Your task to perform on an android device: Search for seafood restaurants on Google Maps Image 0: 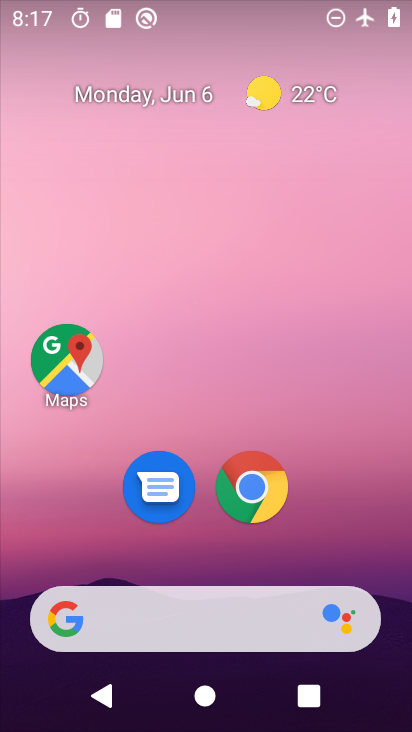
Step 0: drag from (376, 651) to (265, 48)
Your task to perform on an android device: Search for seafood restaurants on Google Maps Image 1: 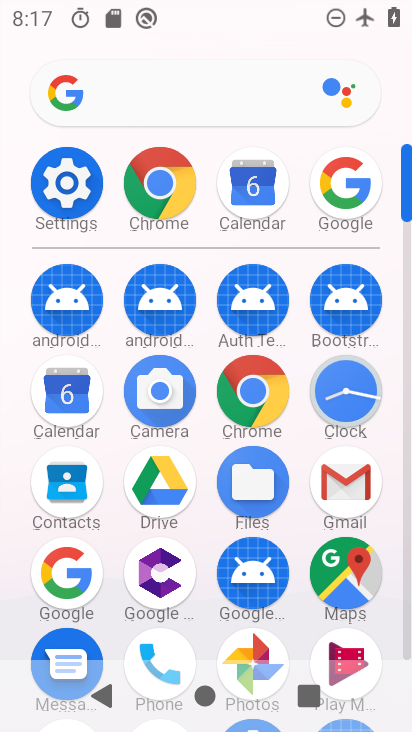
Step 1: click (332, 565)
Your task to perform on an android device: Search for seafood restaurants on Google Maps Image 2: 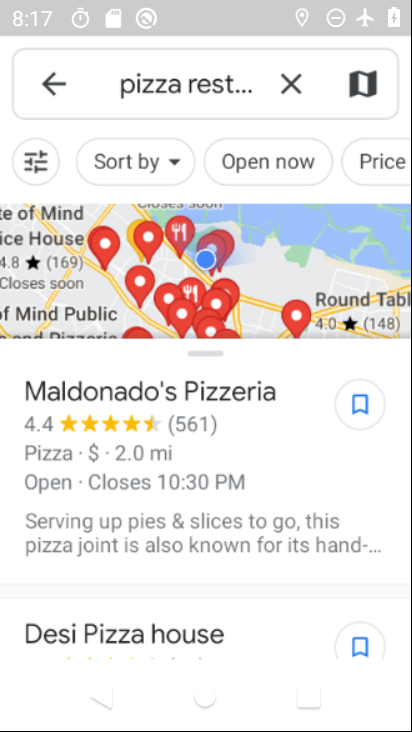
Step 2: click (287, 80)
Your task to perform on an android device: Search for seafood restaurants on Google Maps Image 3: 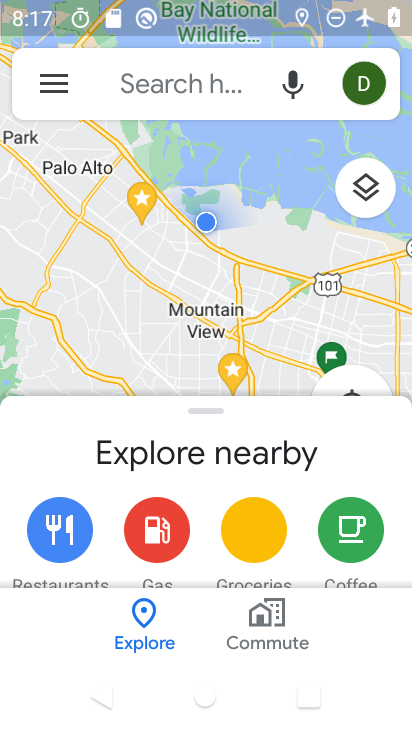
Step 3: click (147, 87)
Your task to perform on an android device: Search for seafood restaurants on Google Maps Image 4: 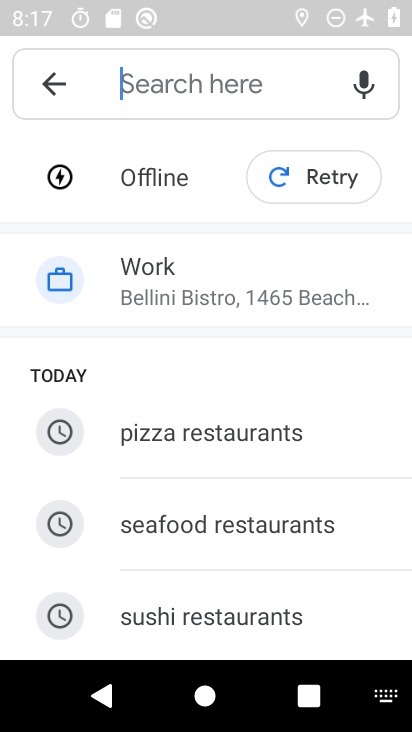
Step 4: click (236, 530)
Your task to perform on an android device: Search for seafood restaurants on Google Maps Image 5: 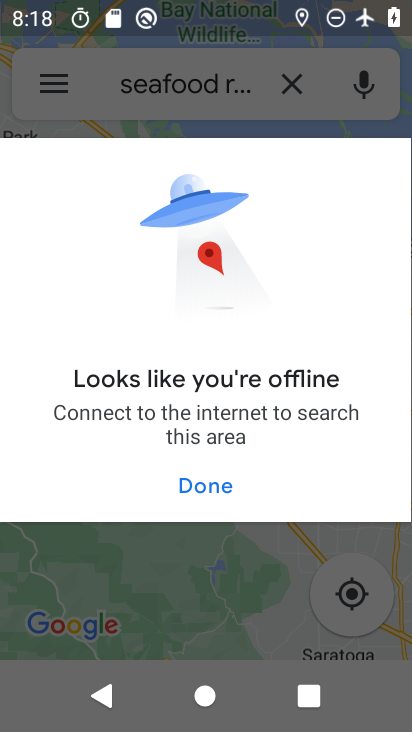
Step 5: task complete